Your task to perform on an android device: Open Wikipedia Image 0: 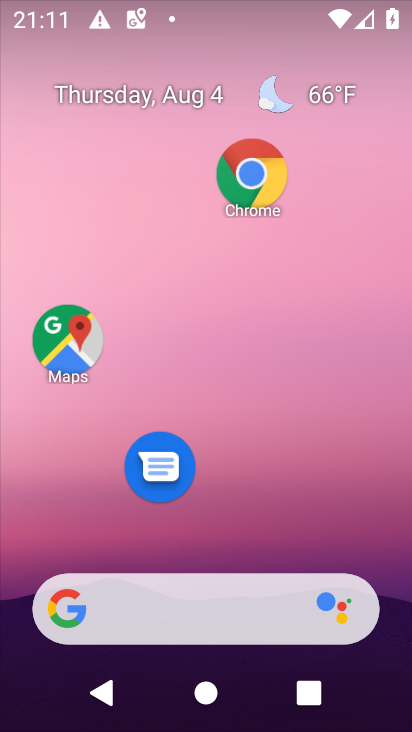
Step 0: press home button
Your task to perform on an android device: Open Wikipedia Image 1: 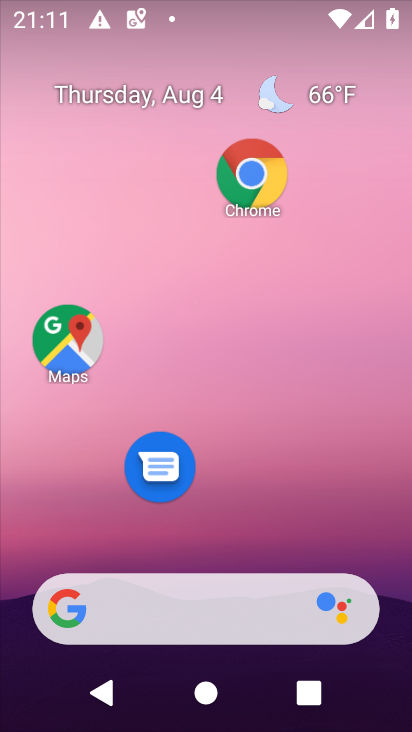
Step 1: drag from (204, 571) to (220, 197)
Your task to perform on an android device: Open Wikipedia Image 2: 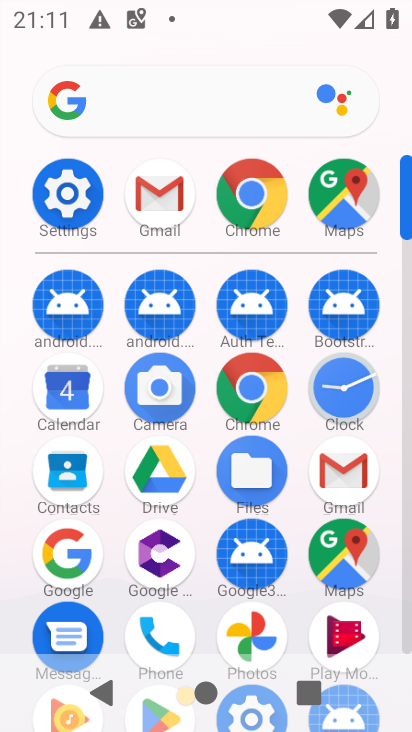
Step 2: click (242, 213)
Your task to perform on an android device: Open Wikipedia Image 3: 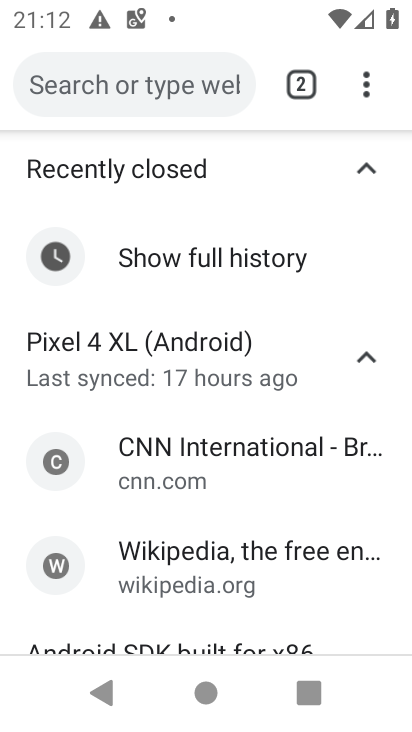
Step 3: click (111, 78)
Your task to perform on an android device: Open Wikipedia Image 4: 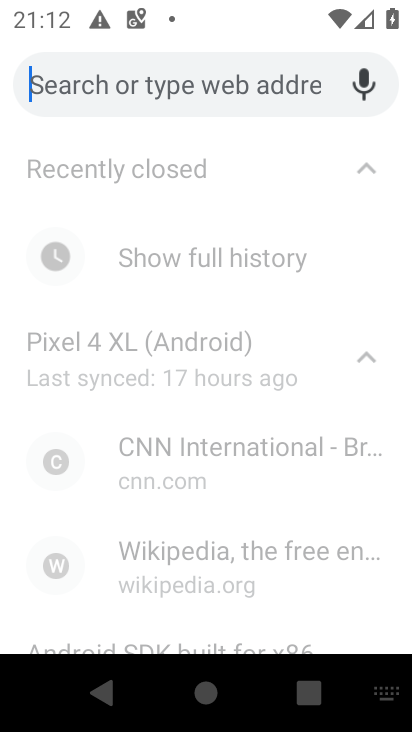
Step 4: type "wikipedia"
Your task to perform on an android device: Open Wikipedia Image 5: 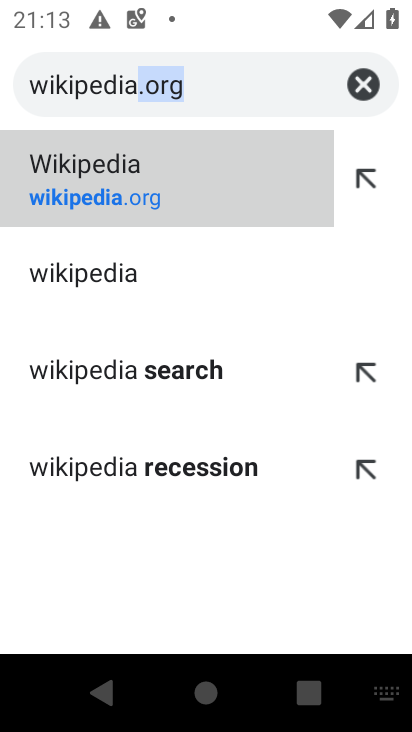
Step 5: click (97, 196)
Your task to perform on an android device: Open Wikipedia Image 6: 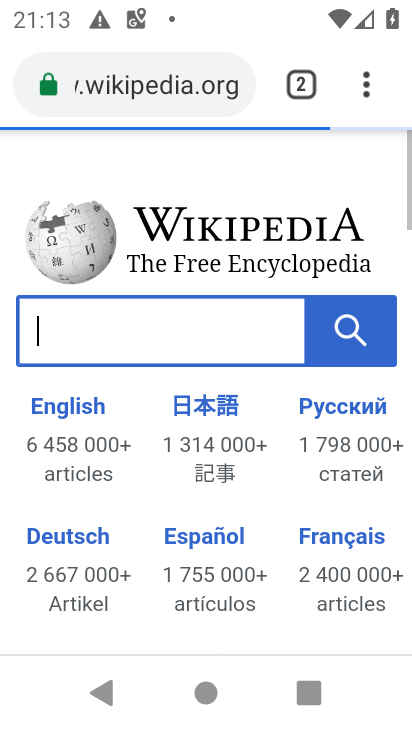
Step 6: task complete